Your task to perform on an android device: toggle data saver in the chrome app Image 0: 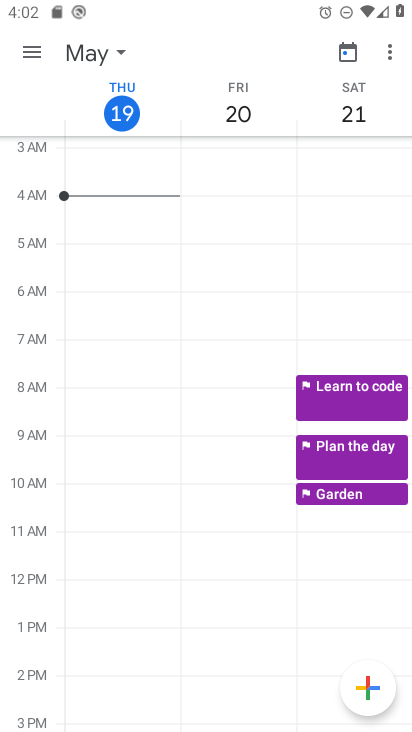
Step 0: press home button
Your task to perform on an android device: toggle data saver in the chrome app Image 1: 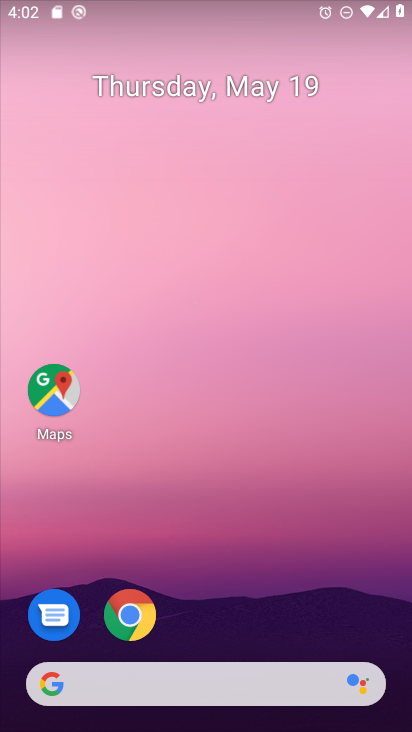
Step 1: click (154, 620)
Your task to perform on an android device: toggle data saver in the chrome app Image 2: 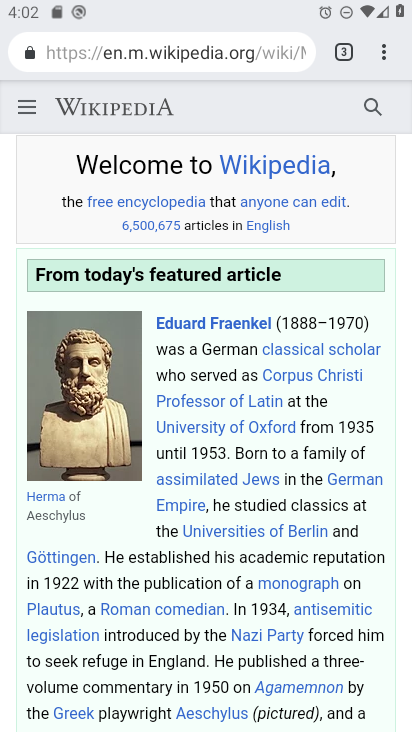
Step 2: click (388, 57)
Your task to perform on an android device: toggle data saver in the chrome app Image 3: 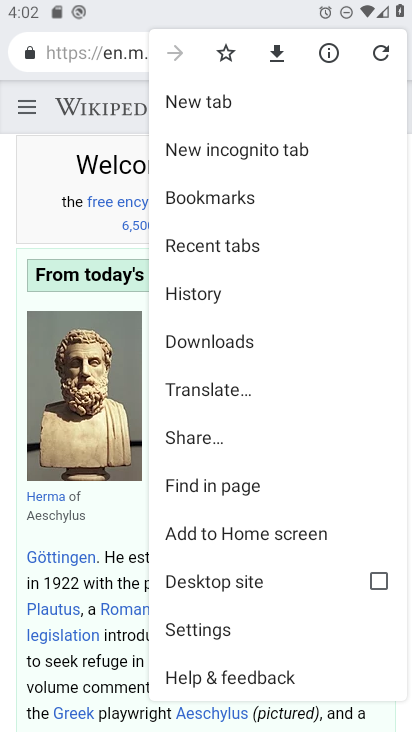
Step 3: click (261, 624)
Your task to perform on an android device: toggle data saver in the chrome app Image 4: 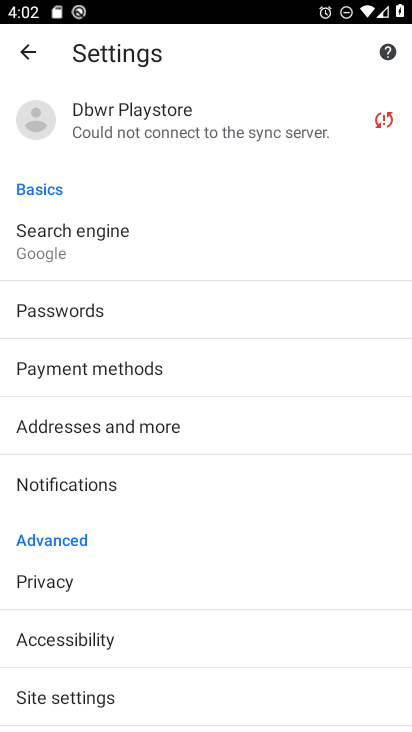
Step 4: drag from (220, 648) to (251, 147)
Your task to perform on an android device: toggle data saver in the chrome app Image 5: 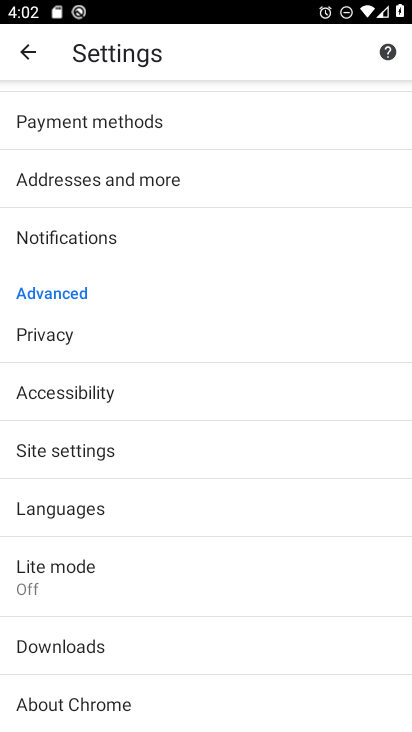
Step 5: click (196, 574)
Your task to perform on an android device: toggle data saver in the chrome app Image 6: 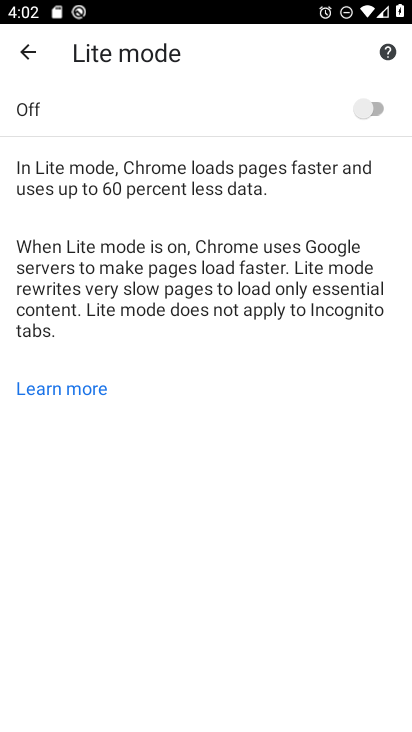
Step 6: click (369, 98)
Your task to perform on an android device: toggle data saver in the chrome app Image 7: 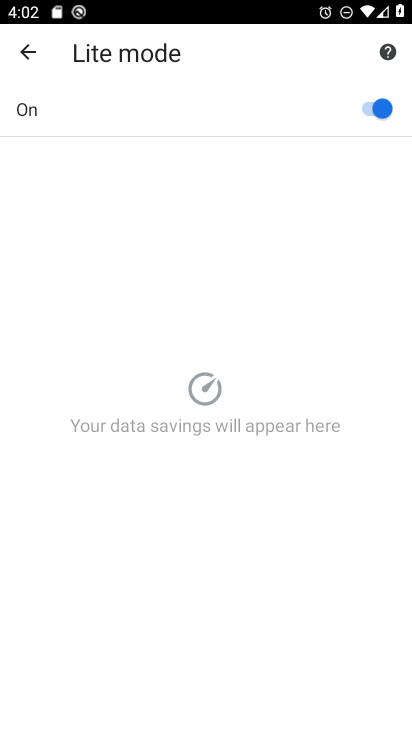
Step 7: task complete